Your task to perform on an android device: create a new album in the google photos Image 0: 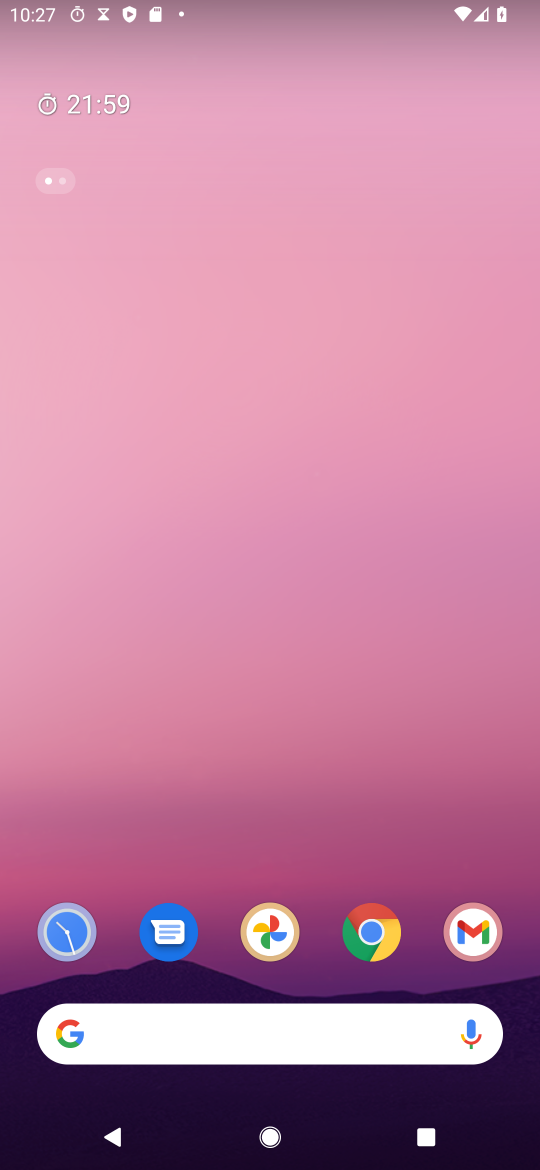
Step 0: click (281, 936)
Your task to perform on an android device: create a new album in the google photos Image 1: 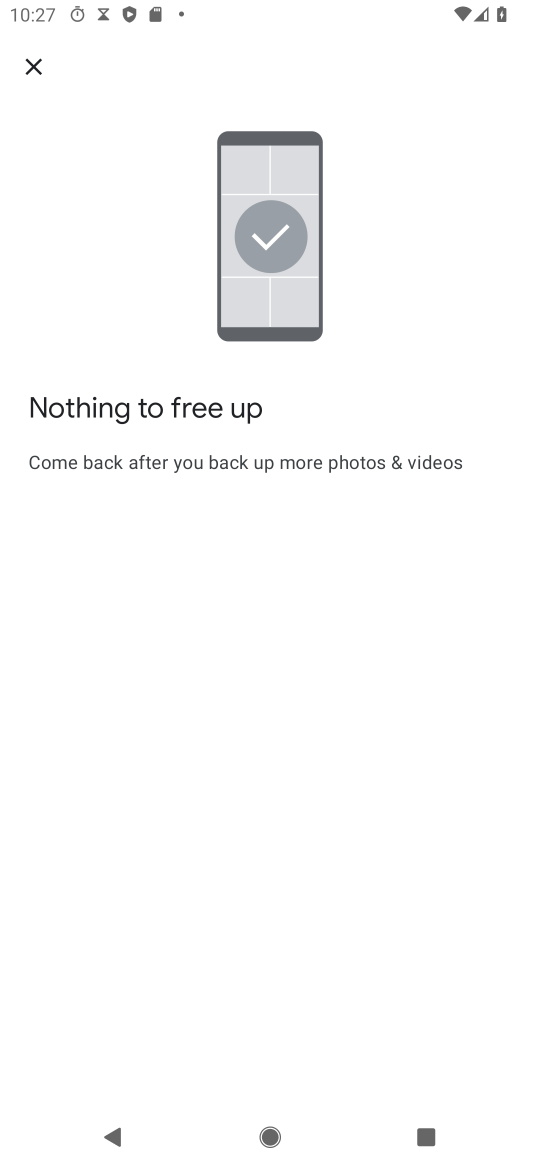
Step 1: click (29, 81)
Your task to perform on an android device: create a new album in the google photos Image 2: 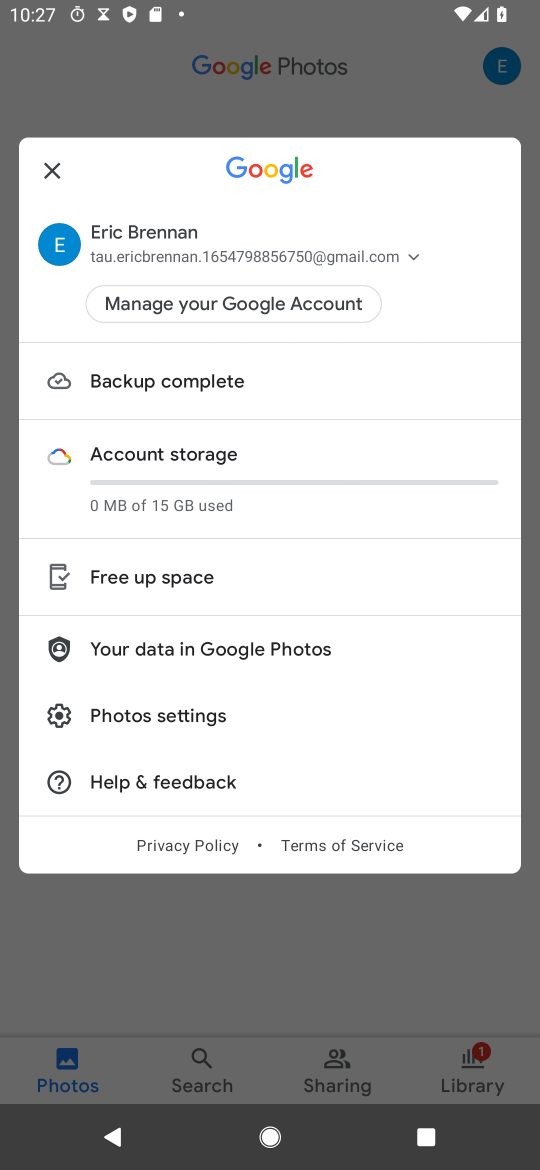
Step 2: click (46, 168)
Your task to perform on an android device: create a new album in the google photos Image 3: 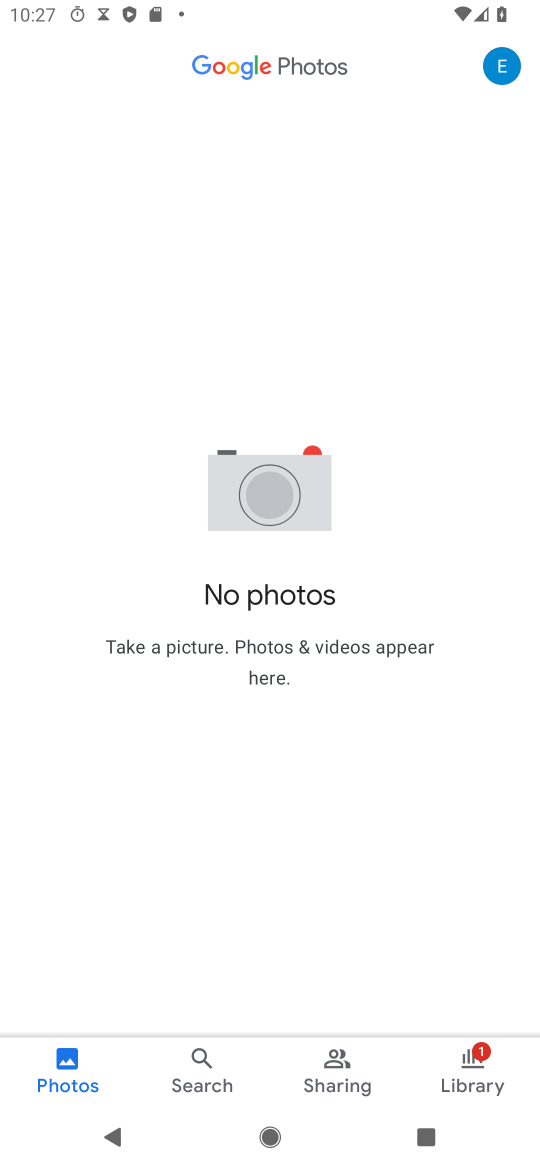
Step 3: click (453, 1073)
Your task to perform on an android device: create a new album in the google photos Image 4: 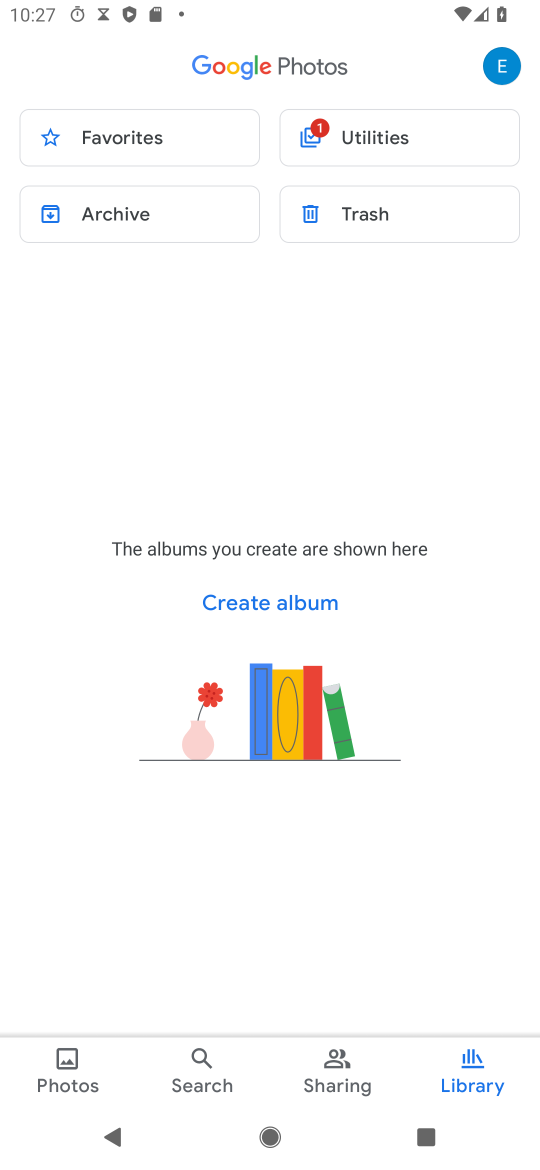
Step 4: click (280, 600)
Your task to perform on an android device: create a new album in the google photos Image 5: 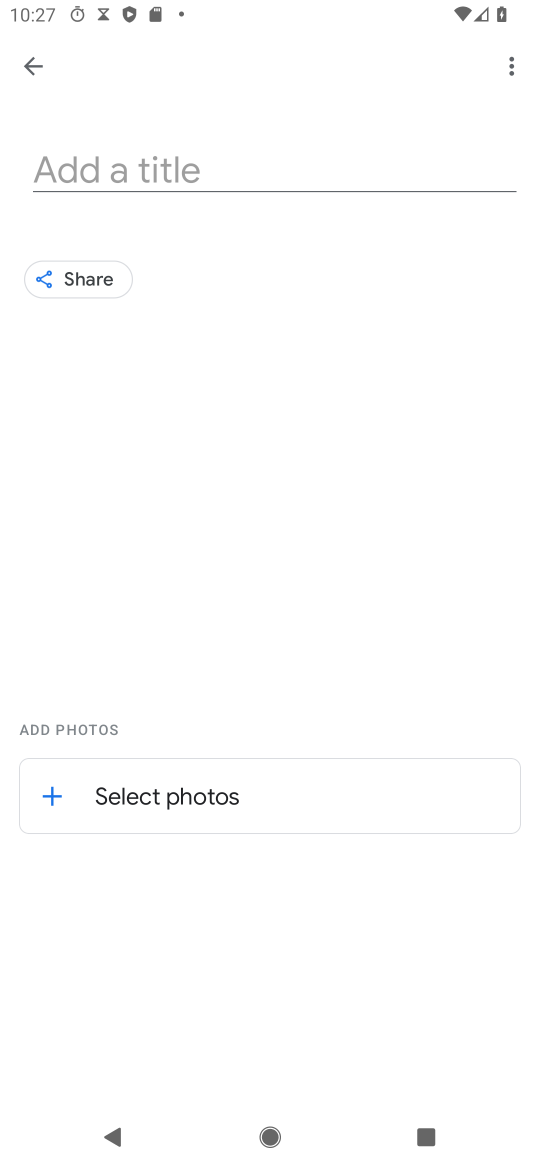
Step 5: click (262, 781)
Your task to perform on an android device: create a new album in the google photos Image 6: 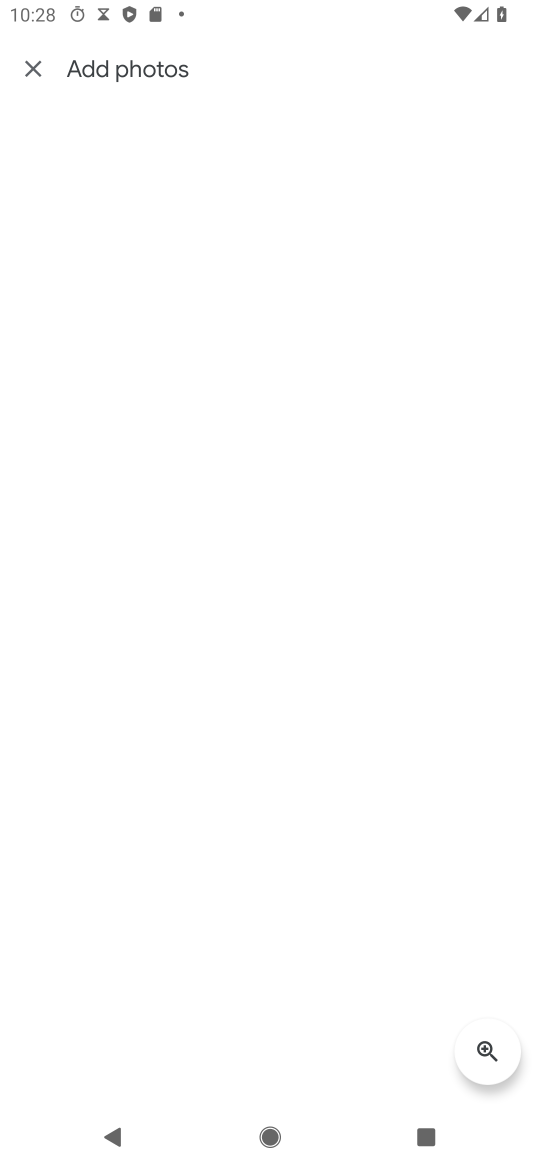
Step 6: task complete